Your task to perform on an android device: Open the calendar and show me this week's events? Image 0: 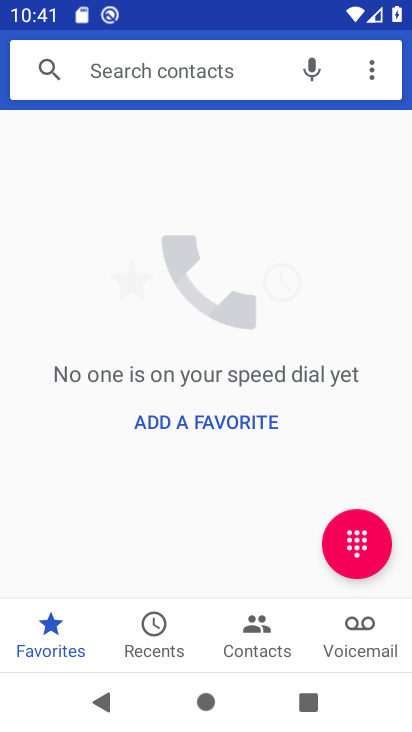
Step 0: press home button
Your task to perform on an android device: Open the calendar and show me this week's events? Image 1: 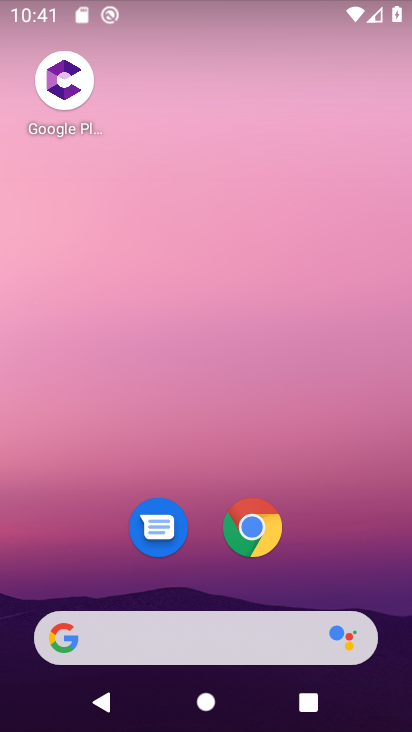
Step 1: drag from (365, 485) to (303, 91)
Your task to perform on an android device: Open the calendar and show me this week's events? Image 2: 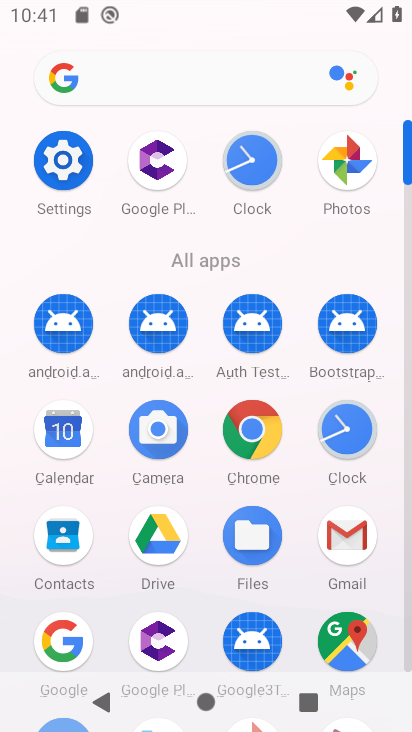
Step 2: click (67, 443)
Your task to perform on an android device: Open the calendar and show me this week's events? Image 3: 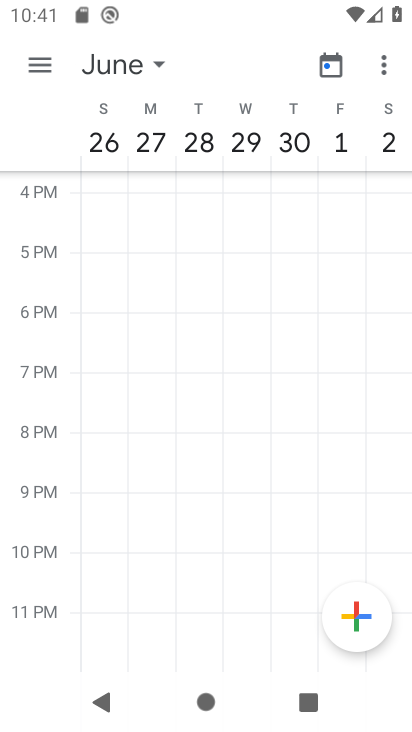
Step 3: click (114, 70)
Your task to perform on an android device: Open the calendar and show me this week's events? Image 4: 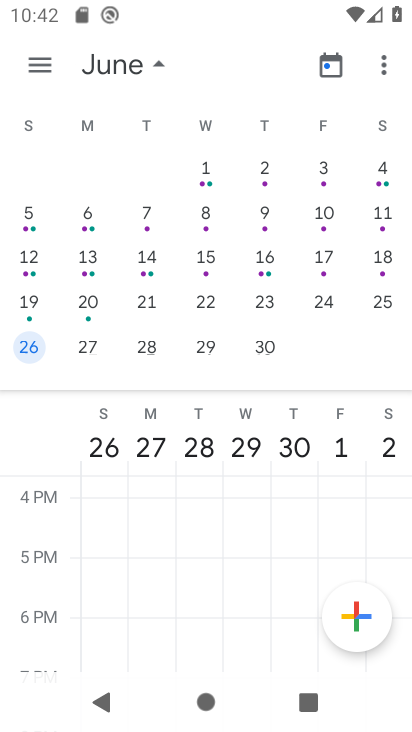
Step 4: drag from (89, 243) to (376, 286)
Your task to perform on an android device: Open the calendar and show me this week's events? Image 5: 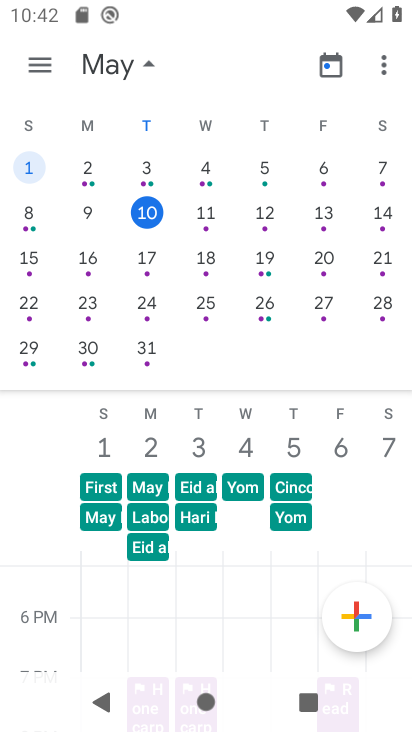
Step 5: click (208, 209)
Your task to perform on an android device: Open the calendar and show me this week's events? Image 6: 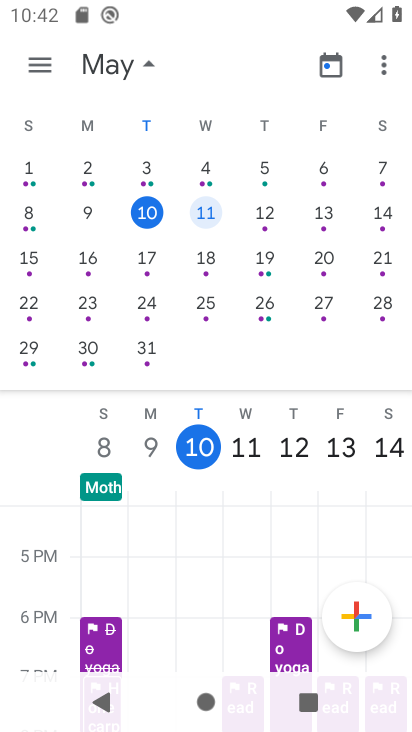
Step 6: task complete